Your task to perform on an android device: change the clock display to digital Image 0: 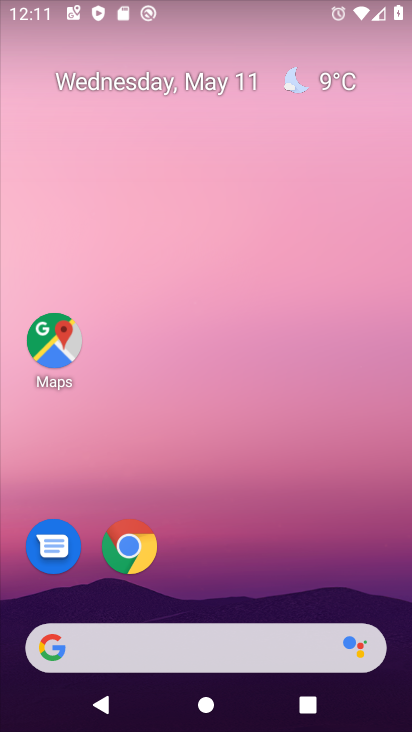
Step 0: drag from (201, 535) to (0, 180)
Your task to perform on an android device: change the clock display to digital Image 1: 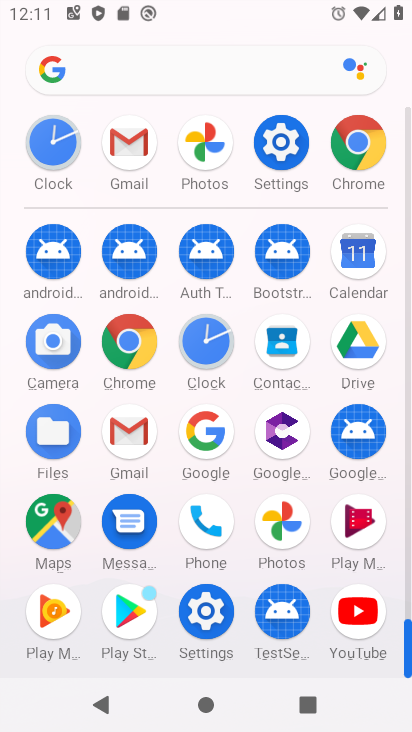
Step 1: click (209, 335)
Your task to perform on an android device: change the clock display to digital Image 2: 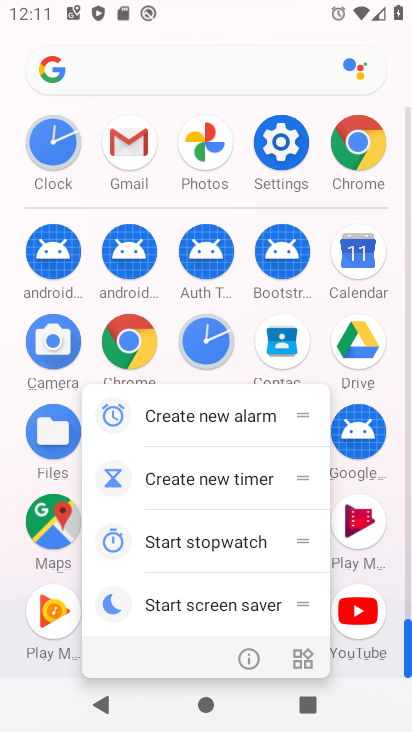
Step 2: click (255, 654)
Your task to perform on an android device: change the clock display to digital Image 3: 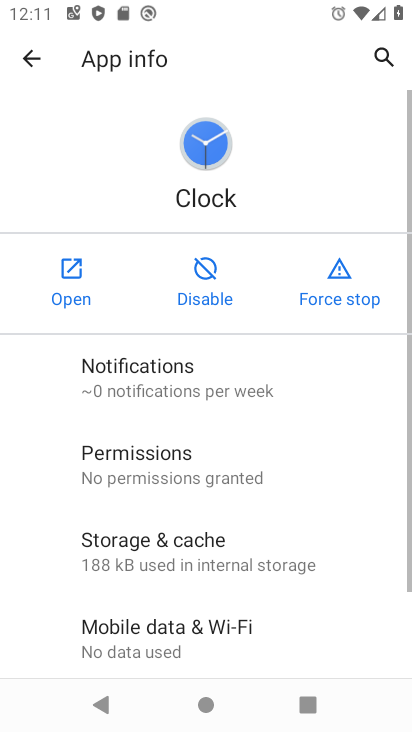
Step 3: click (81, 274)
Your task to perform on an android device: change the clock display to digital Image 4: 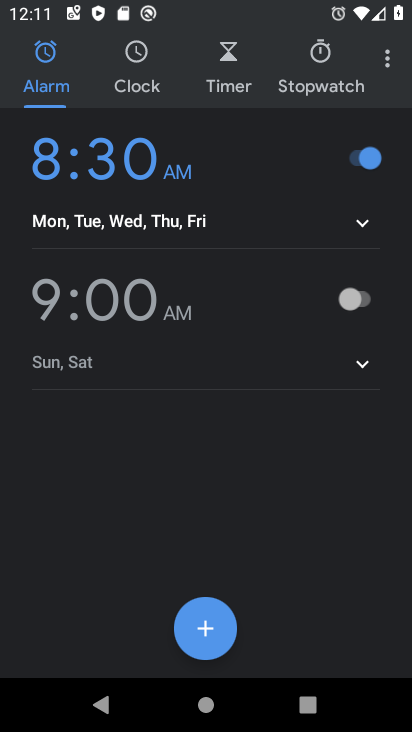
Step 4: click (387, 60)
Your task to perform on an android device: change the clock display to digital Image 5: 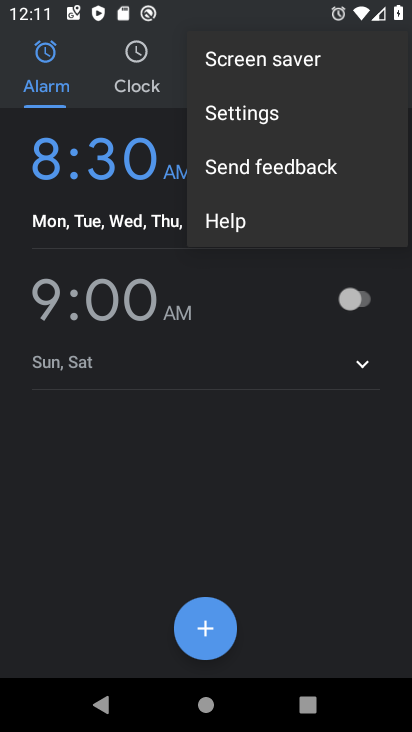
Step 5: click (239, 107)
Your task to perform on an android device: change the clock display to digital Image 6: 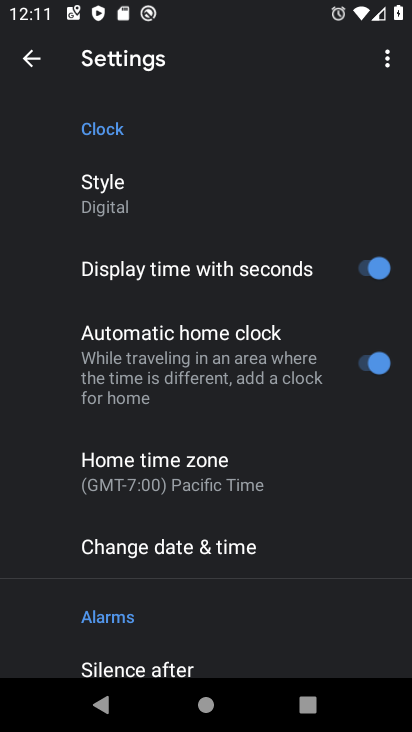
Step 6: click (163, 198)
Your task to perform on an android device: change the clock display to digital Image 7: 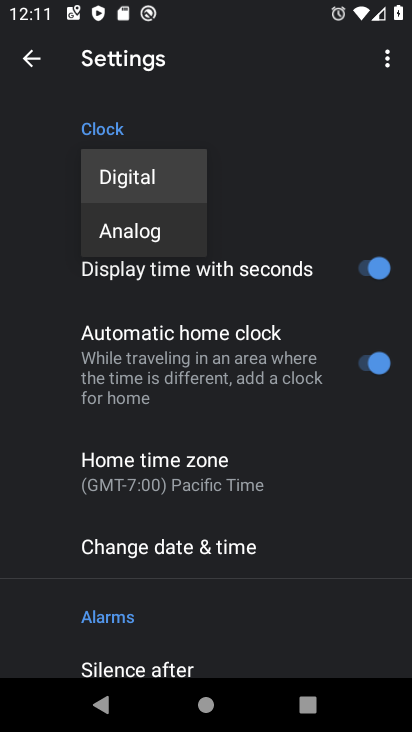
Step 7: click (142, 183)
Your task to perform on an android device: change the clock display to digital Image 8: 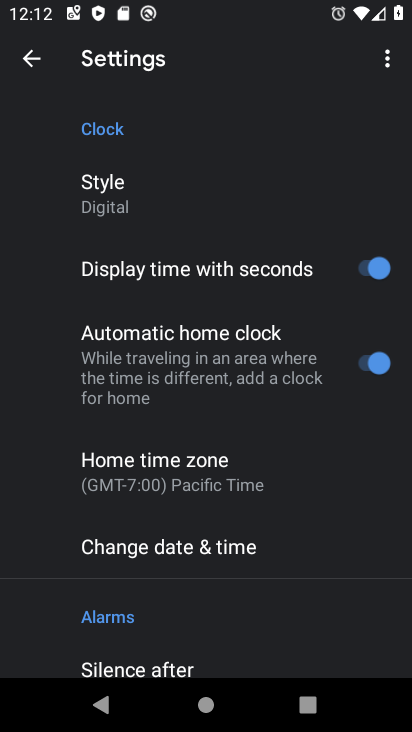
Step 8: task complete